Your task to perform on an android device: Open Google Chrome and click the shortcut for Amazon.com Image 0: 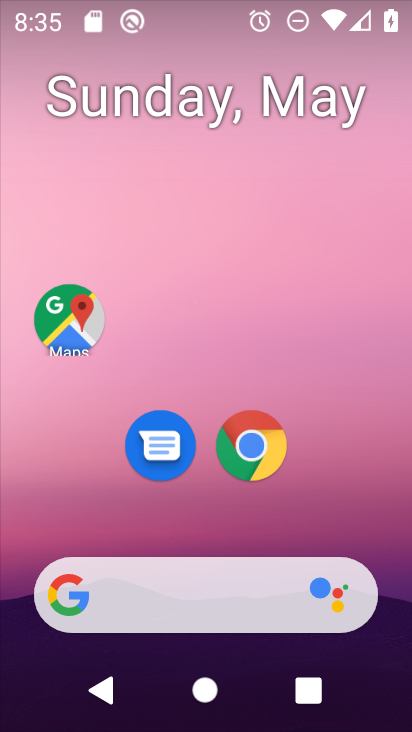
Step 0: drag from (256, 641) to (294, 110)
Your task to perform on an android device: Open Google Chrome and click the shortcut for Amazon.com Image 1: 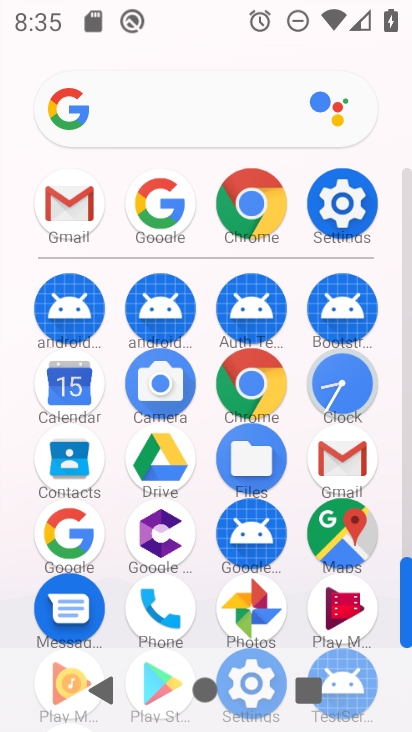
Step 1: click (251, 227)
Your task to perform on an android device: Open Google Chrome and click the shortcut for Amazon.com Image 2: 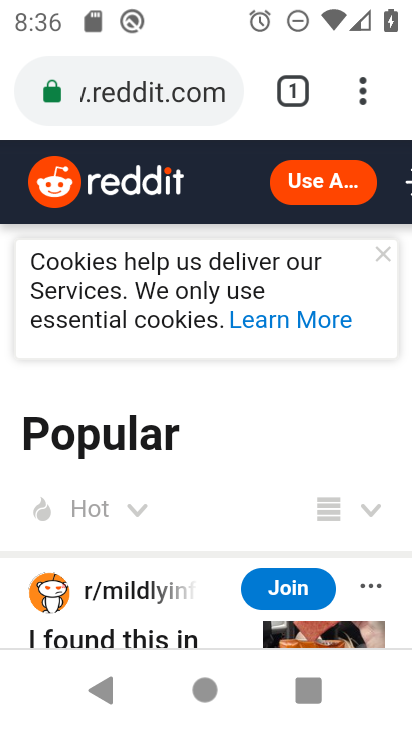
Step 2: click (374, 100)
Your task to perform on an android device: Open Google Chrome and click the shortcut for Amazon.com Image 3: 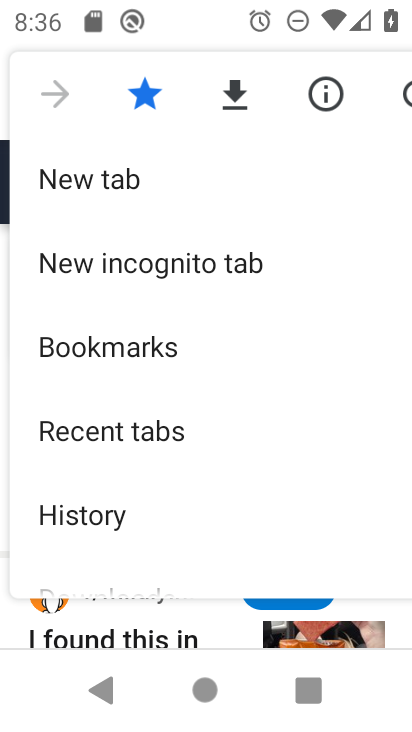
Step 3: click (137, 634)
Your task to perform on an android device: Open Google Chrome and click the shortcut for Amazon.com Image 4: 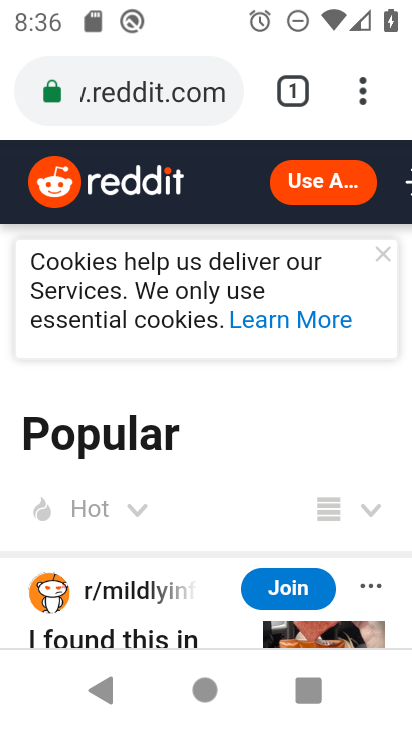
Step 4: drag from (210, 91) to (207, 347)
Your task to perform on an android device: Open Google Chrome and click the shortcut for Amazon.com Image 5: 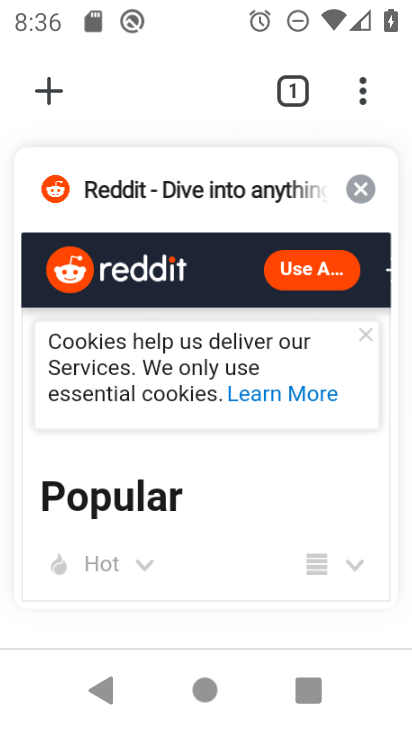
Step 5: click (45, 92)
Your task to perform on an android device: Open Google Chrome and click the shortcut for Amazon.com Image 6: 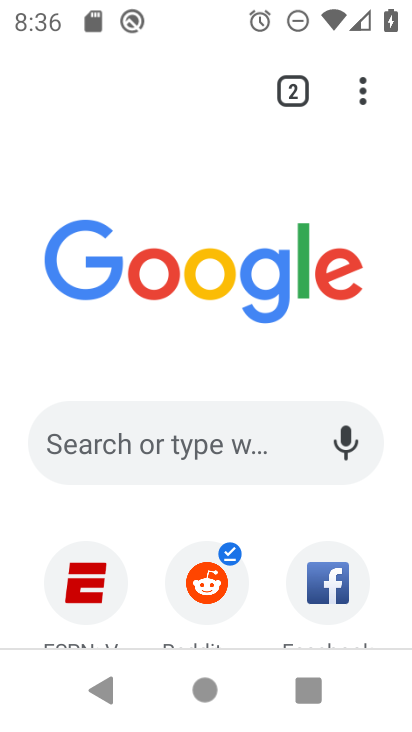
Step 6: drag from (216, 527) to (257, 154)
Your task to perform on an android device: Open Google Chrome and click the shortcut for Amazon.com Image 7: 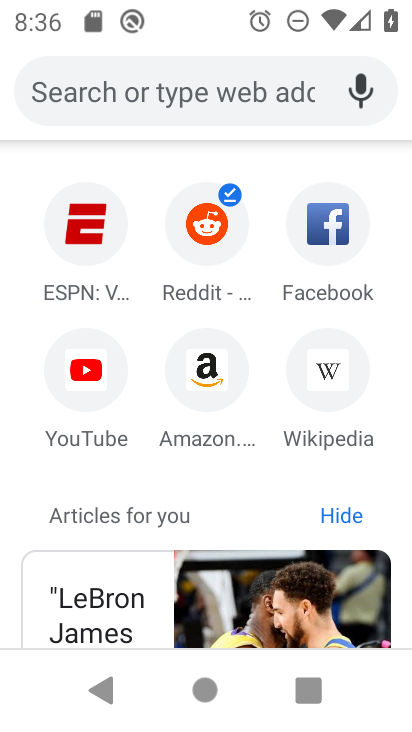
Step 7: click (220, 369)
Your task to perform on an android device: Open Google Chrome and click the shortcut for Amazon.com Image 8: 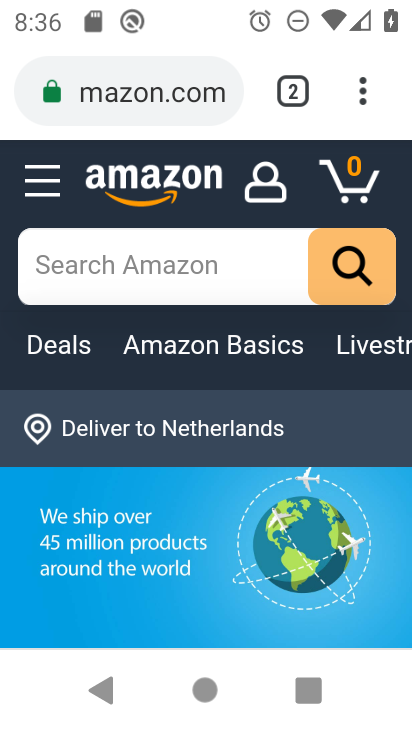
Step 8: task complete